Your task to perform on an android device: turn on airplane mode Image 0: 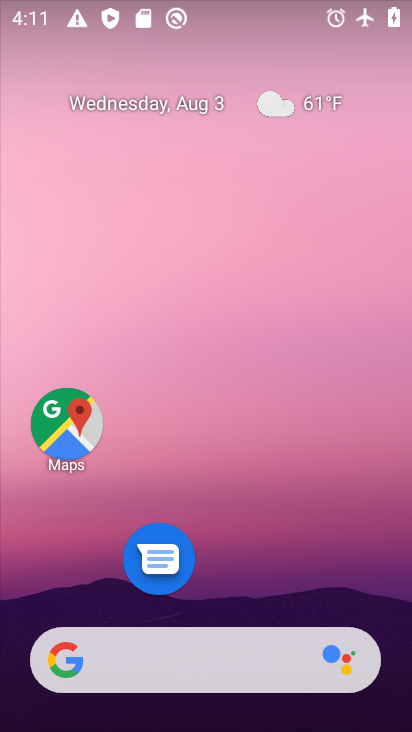
Step 0: task complete